Your task to perform on an android device: Open wifi settings Image 0: 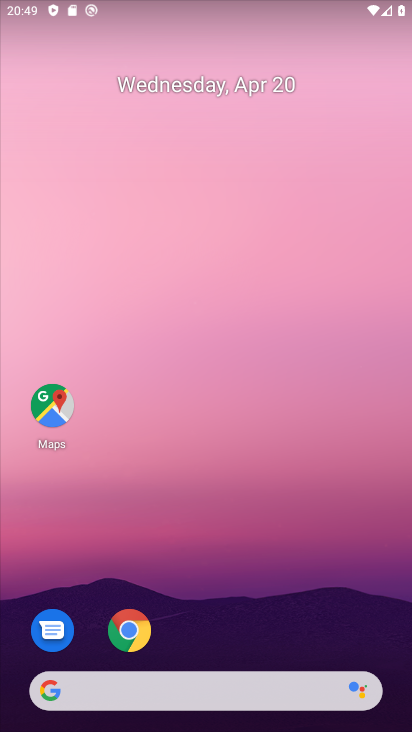
Step 0: drag from (193, 555) to (128, 166)
Your task to perform on an android device: Open wifi settings Image 1: 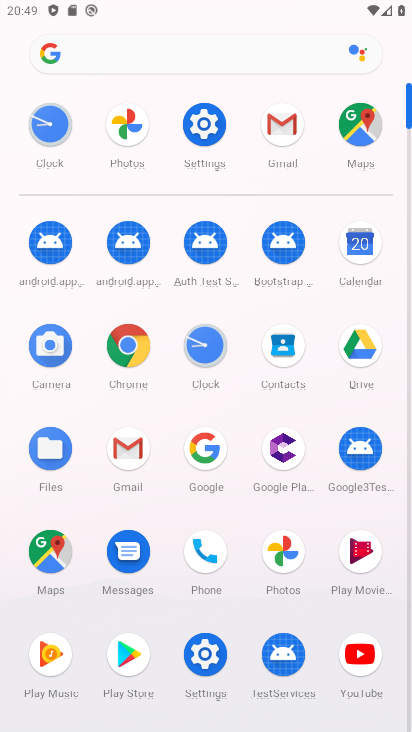
Step 1: click (207, 124)
Your task to perform on an android device: Open wifi settings Image 2: 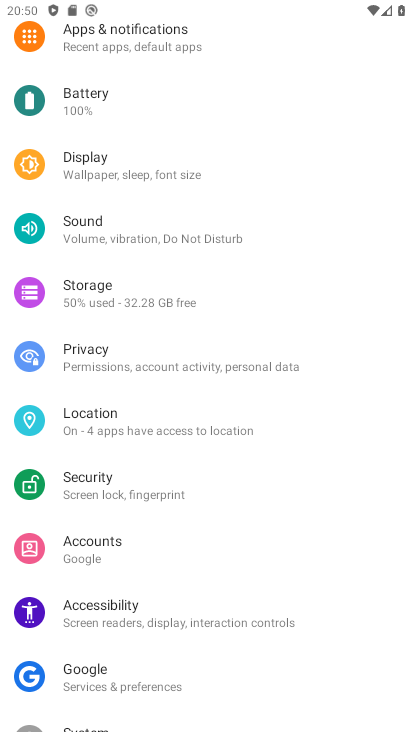
Step 2: drag from (211, 154) to (200, 512)
Your task to perform on an android device: Open wifi settings Image 3: 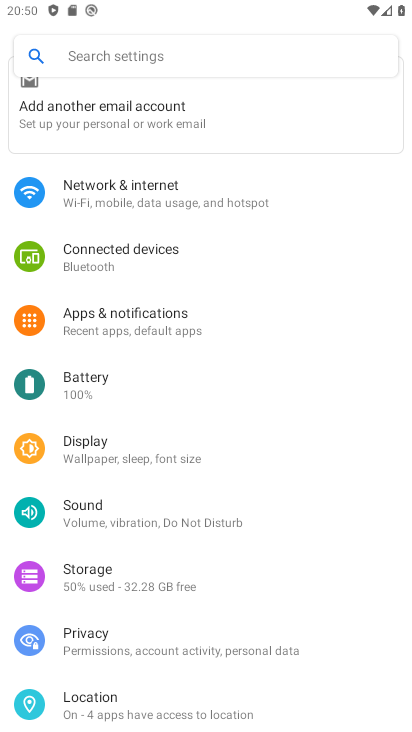
Step 3: click (145, 188)
Your task to perform on an android device: Open wifi settings Image 4: 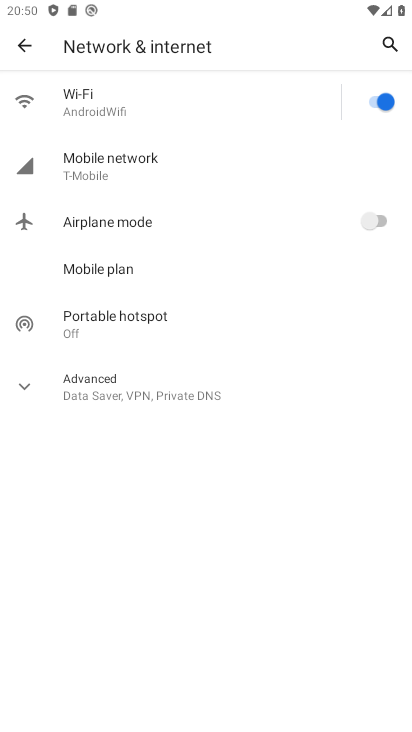
Step 4: click (120, 105)
Your task to perform on an android device: Open wifi settings Image 5: 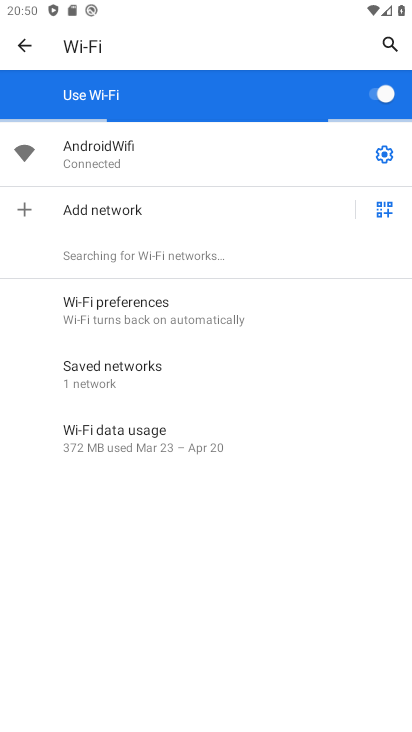
Step 5: task complete